Your task to perform on an android device: open app "Google Maps" (install if not already installed) Image 0: 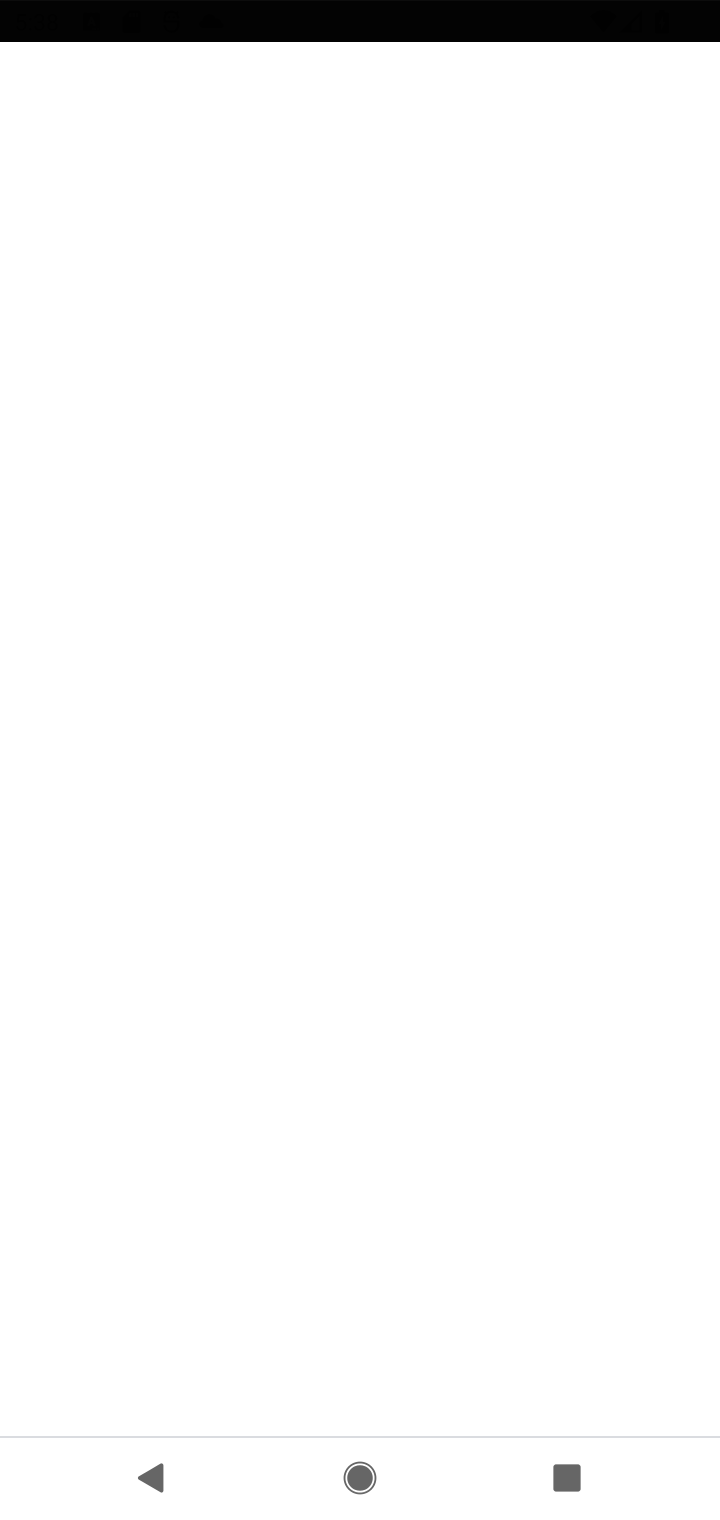
Step 0: press home button
Your task to perform on an android device: open app "Google Maps" (install if not already installed) Image 1: 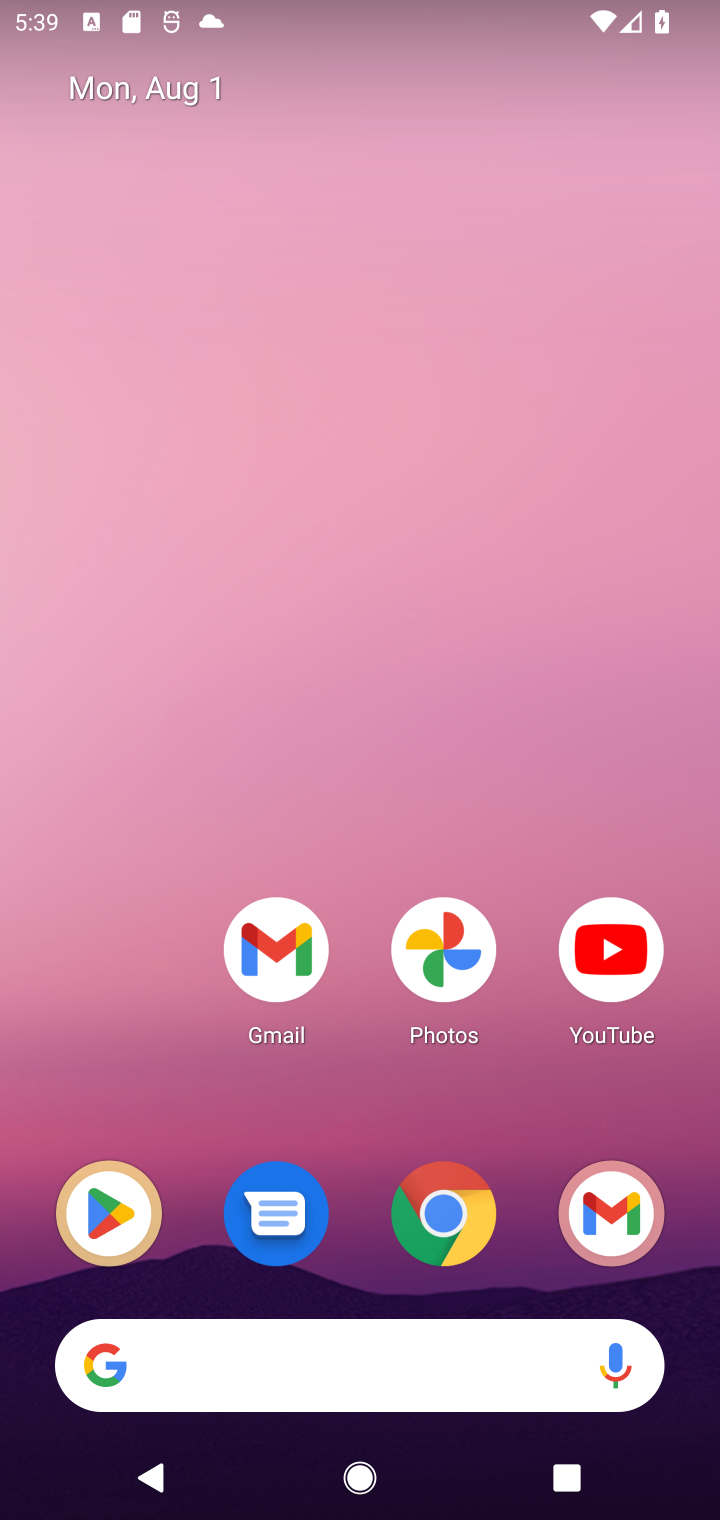
Step 1: drag from (543, 1145) to (530, 309)
Your task to perform on an android device: open app "Google Maps" (install if not already installed) Image 2: 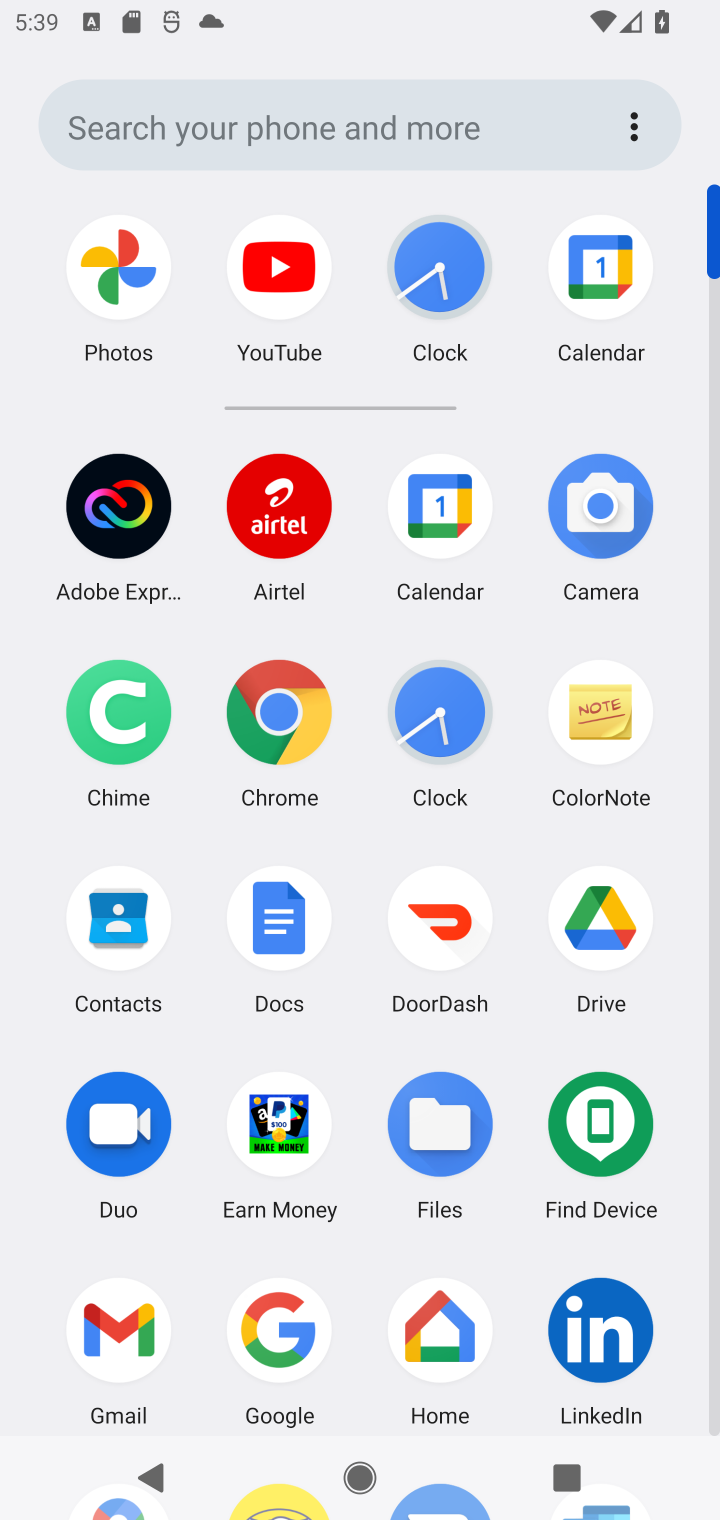
Step 2: drag from (345, 1211) to (377, 263)
Your task to perform on an android device: open app "Google Maps" (install if not already installed) Image 3: 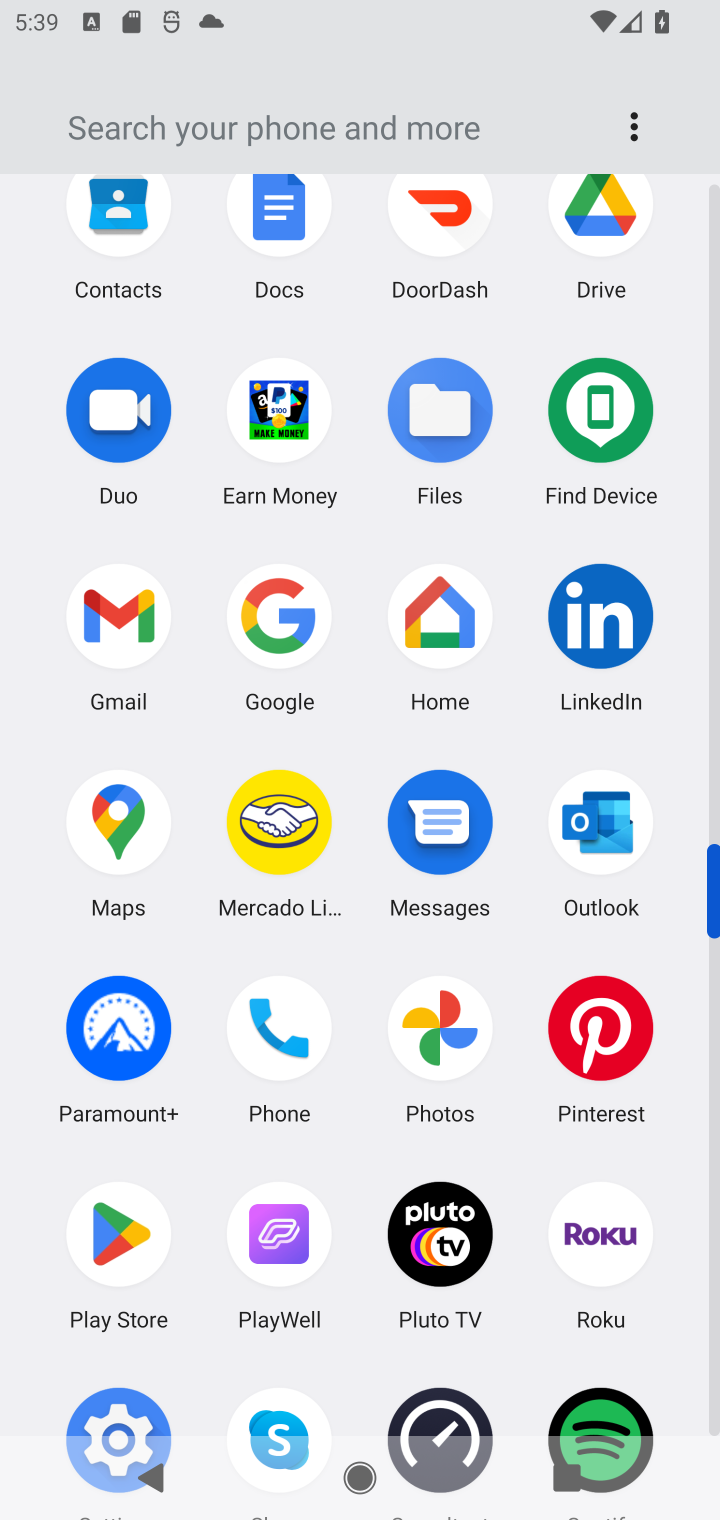
Step 3: click (111, 1237)
Your task to perform on an android device: open app "Google Maps" (install if not already installed) Image 4: 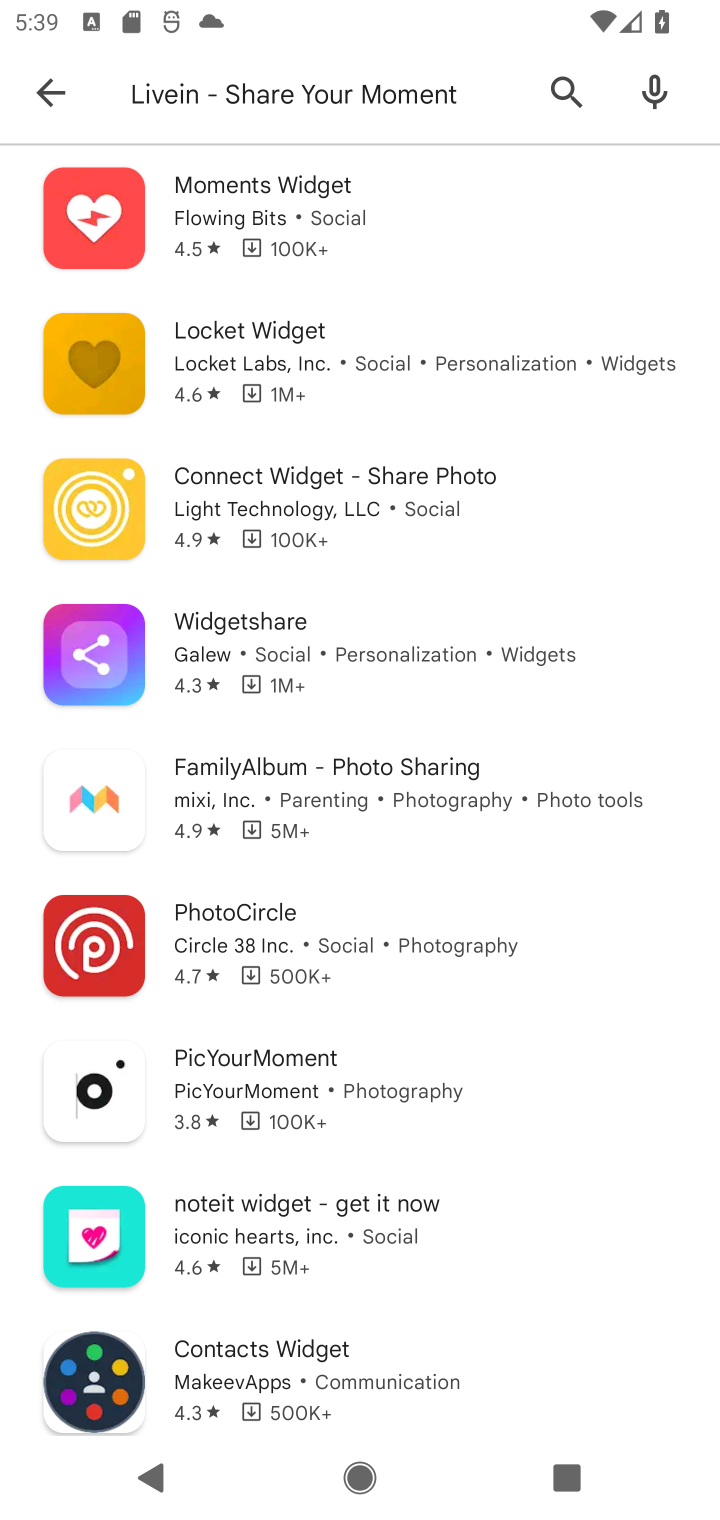
Step 4: click (419, 64)
Your task to perform on an android device: open app "Google Maps" (install if not already installed) Image 5: 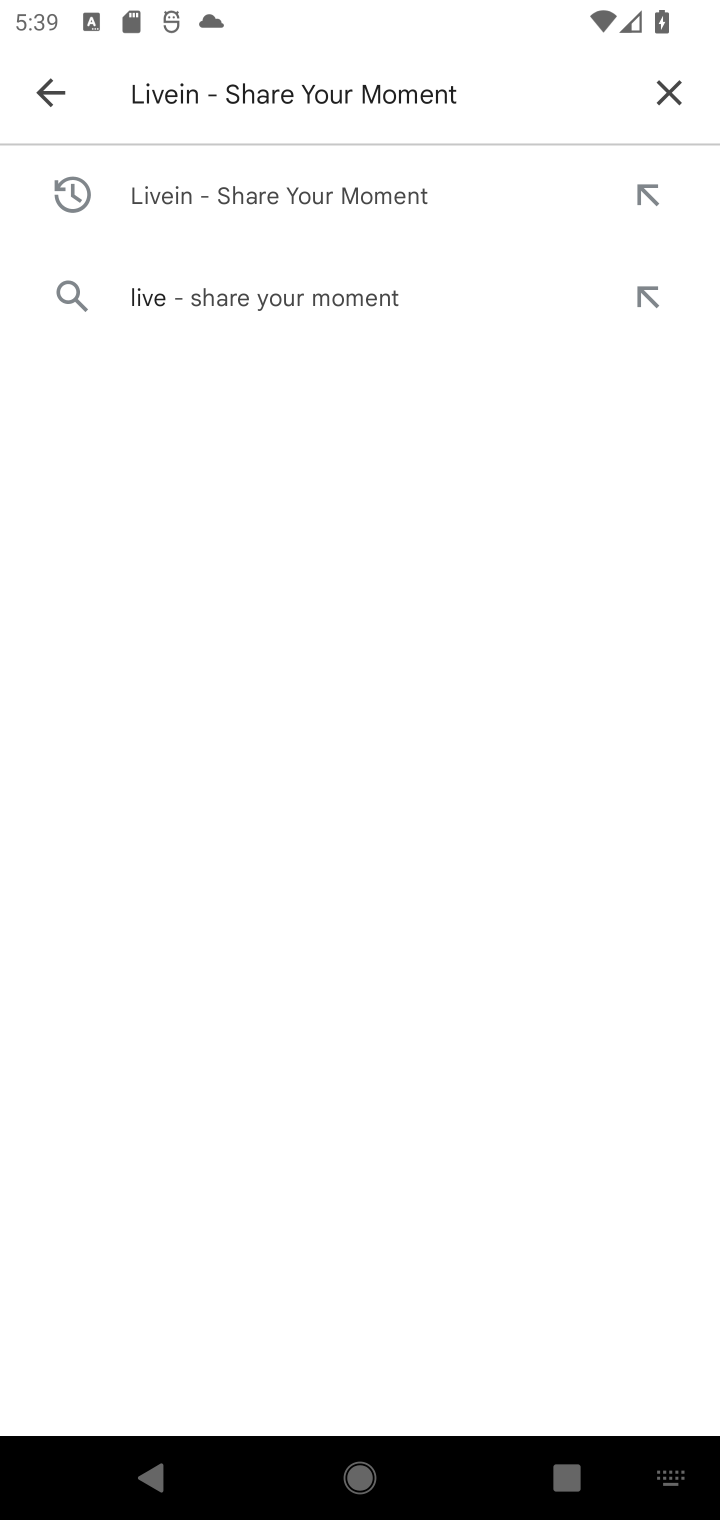
Step 5: click (655, 77)
Your task to perform on an android device: open app "Google Maps" (install if not already installed) Image 6: 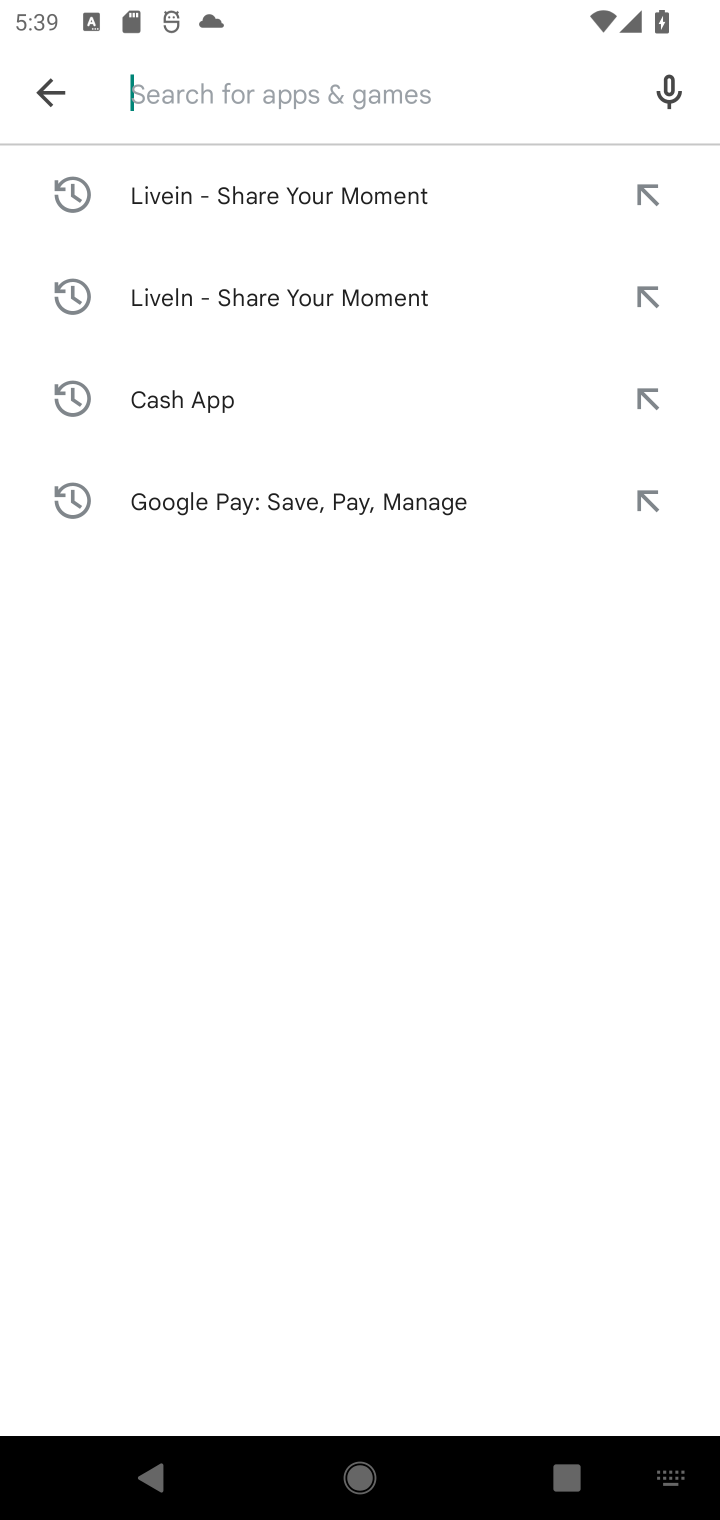
Step 6: type "Google Maps"
Your task to perform on an android device: open app "Google Maps" (install if not already installed) Image 7: 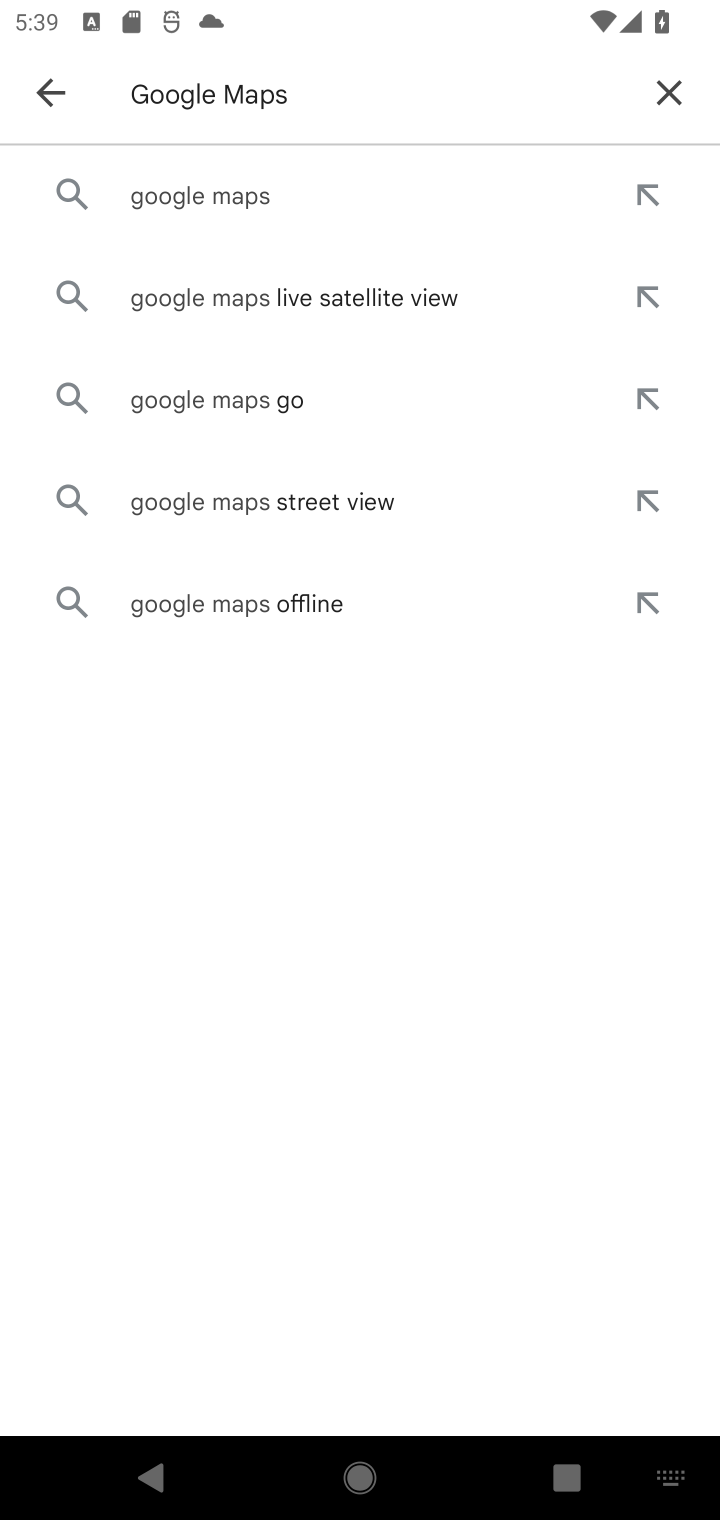
Step 7: press enter
Your task to perform on an android device: open app "Google Maps" (install if not already installed) Image 8: 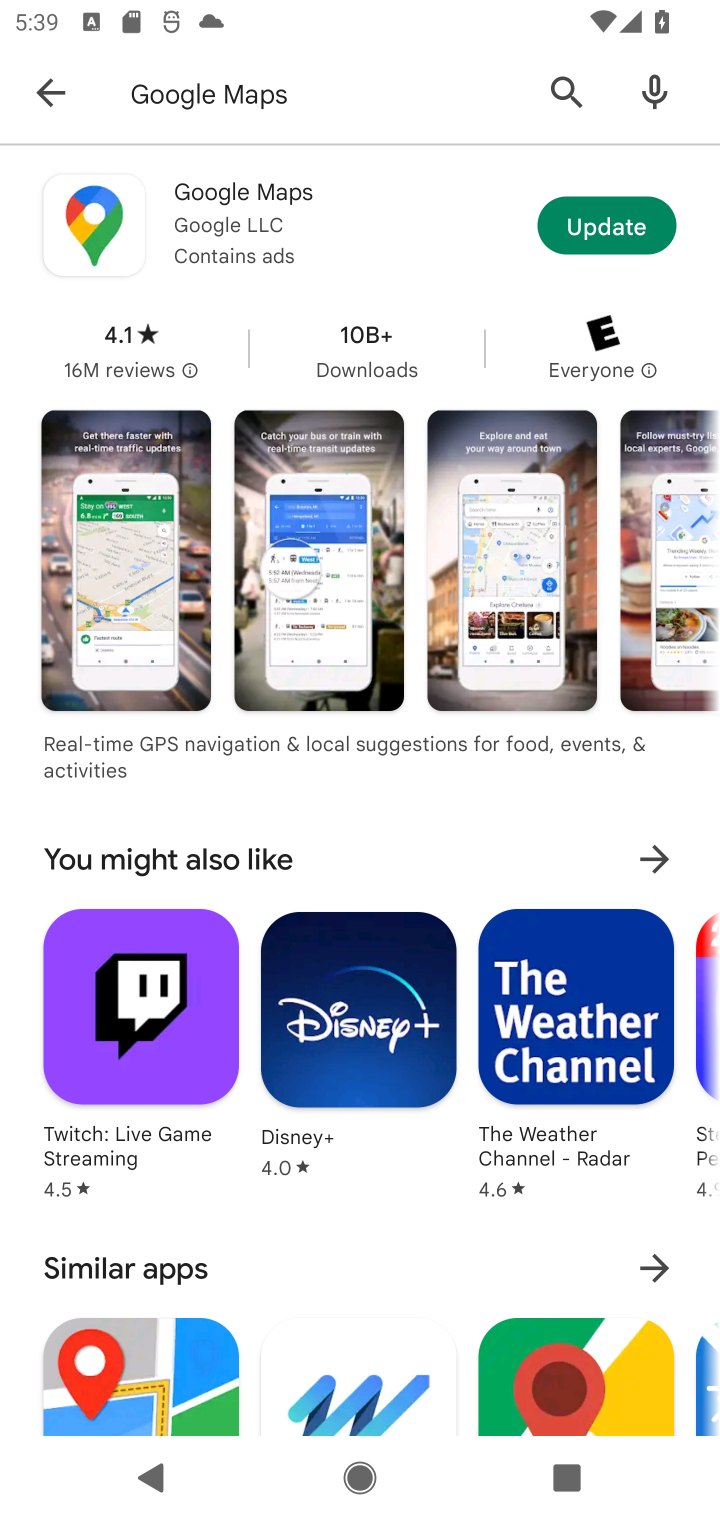
Step 8: click (413, 223)
Your task to perform on an android device: open app "Google Maps" (install if not already installed) Image 9: 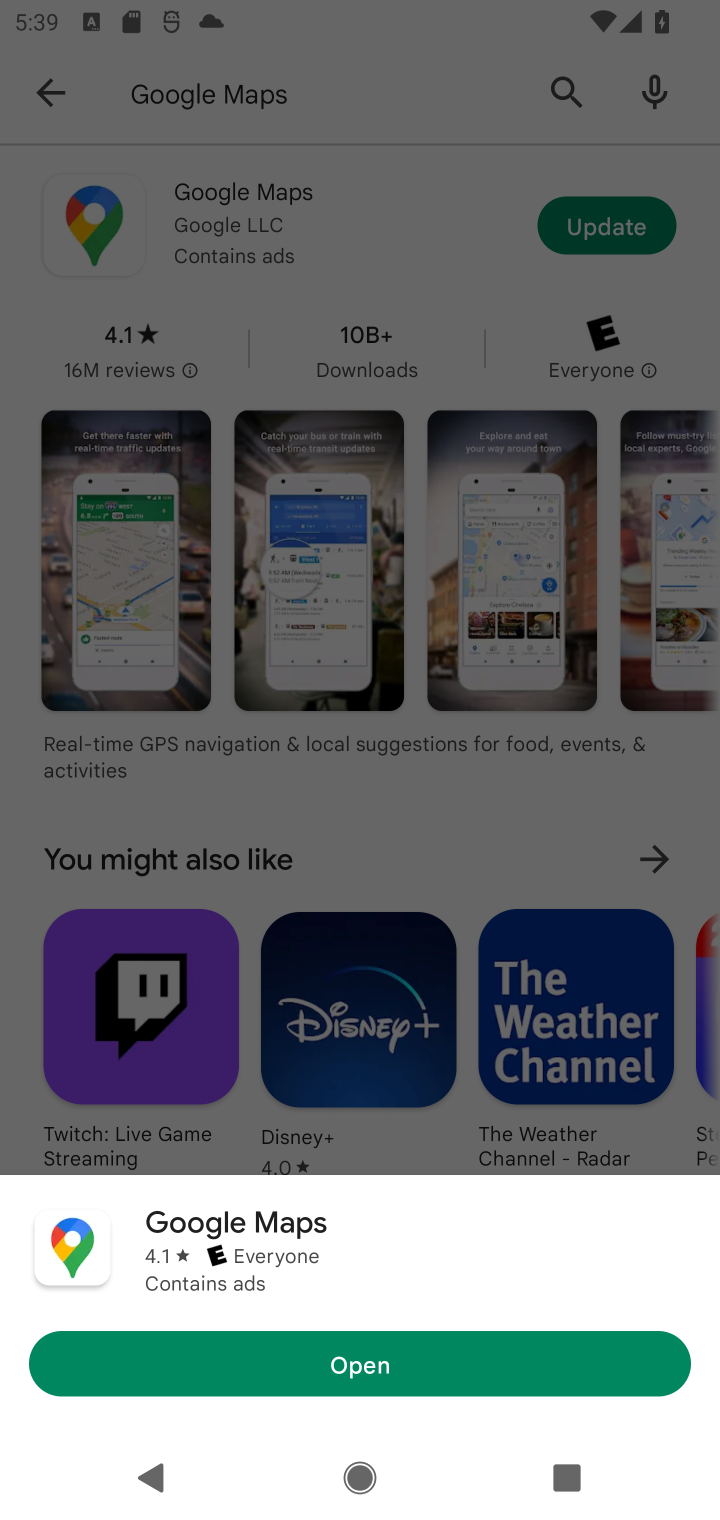
Step 9: click (397, 277)
Your task to perform on an android device: open app "Google Maps" (install if not already installed) Image 10: 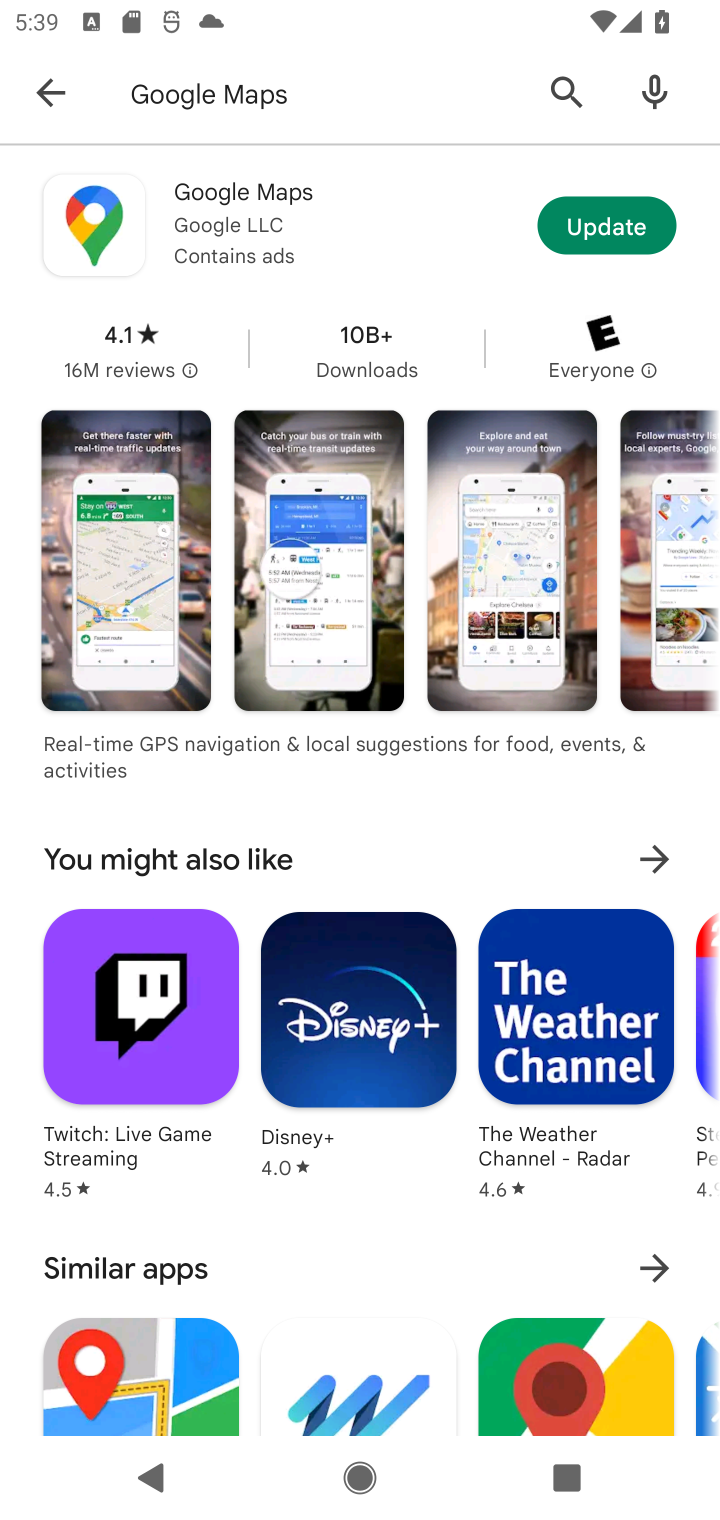
Step 10: click (348, 259)
Your task to perform on an android device: open app "Google Maps" (install if not already installed) Image 11: 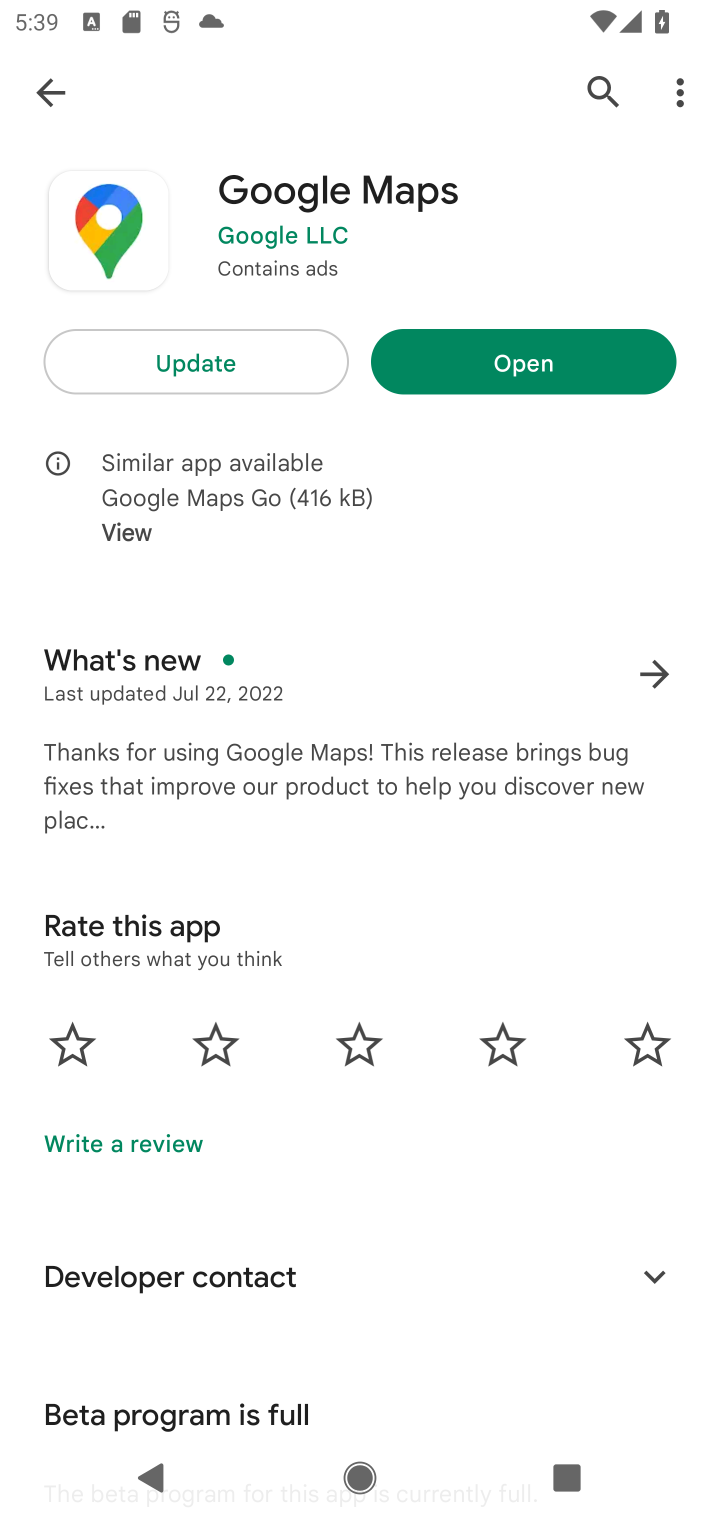
Step 11: click (604, 359)
Your task to perform on an android device: open app "Google Maps" (install if not already installed) Image 12: 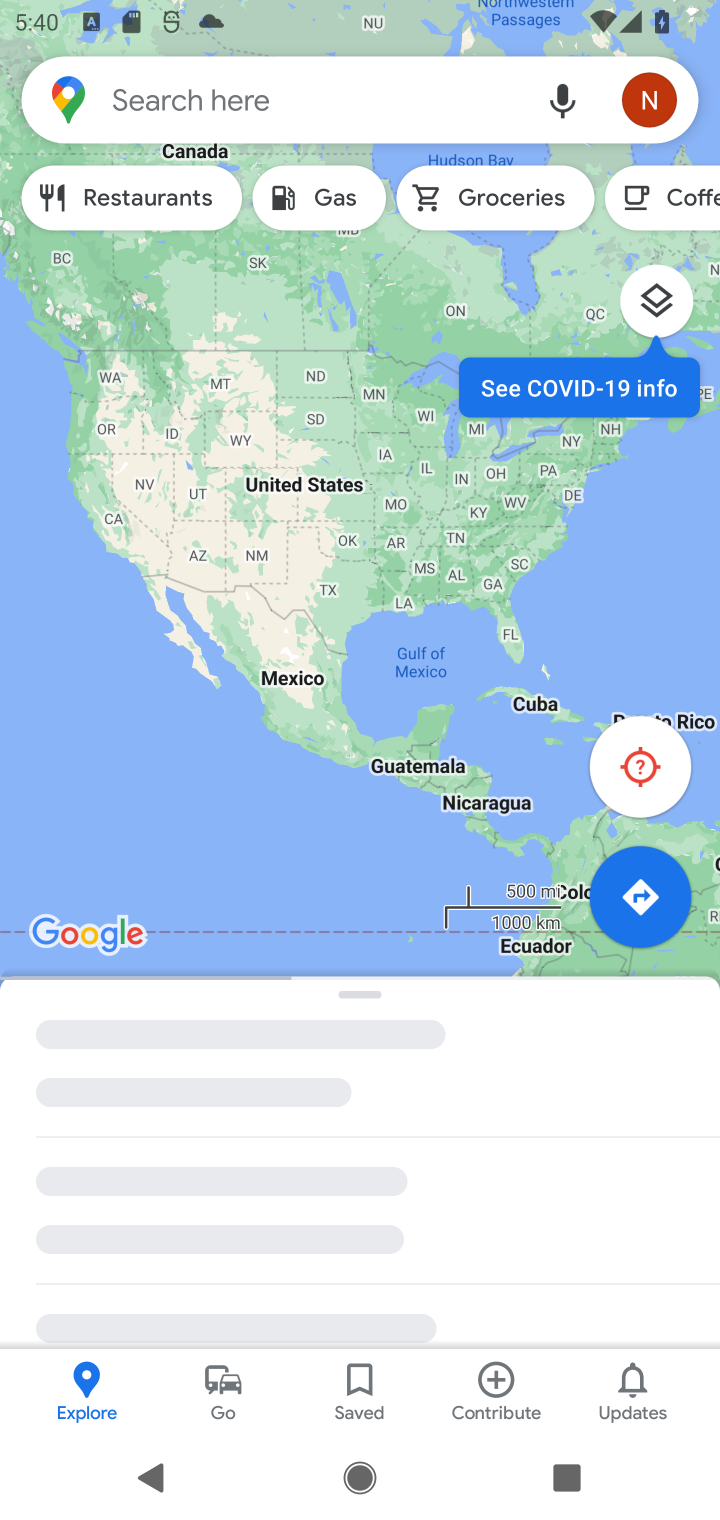
Step 12: task complete